Your task to perform on an android device: Show me recent news Image 0: 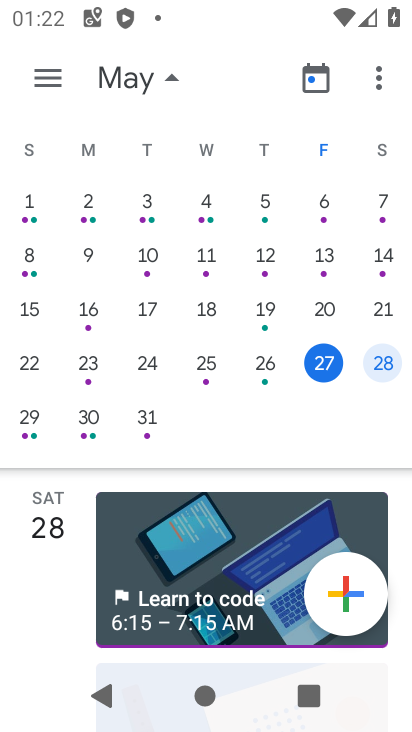
Step 0: press home button
Your task to perform on an android device: Show me recent news Image 1: 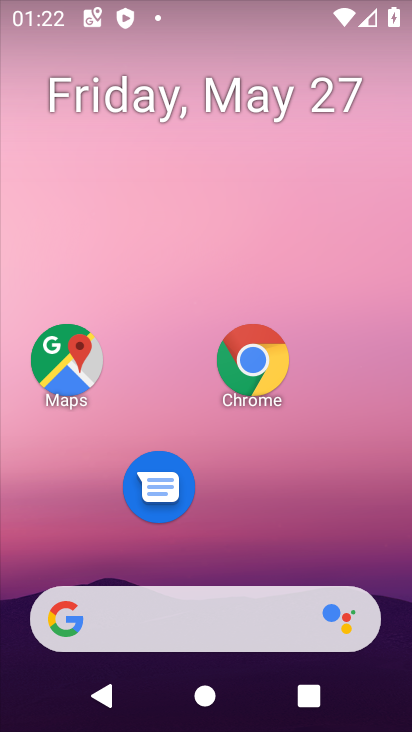
Step 1: drag from (236, 528) to (227, 130)
Your task to perform on an android device: Show me recent news Image 2: 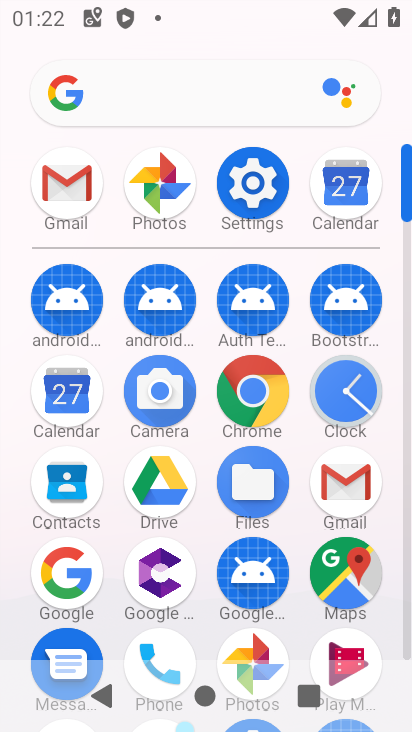
Step 2: click (69, 575)
Your task to perform on an android device: Show me recent news Image 3: 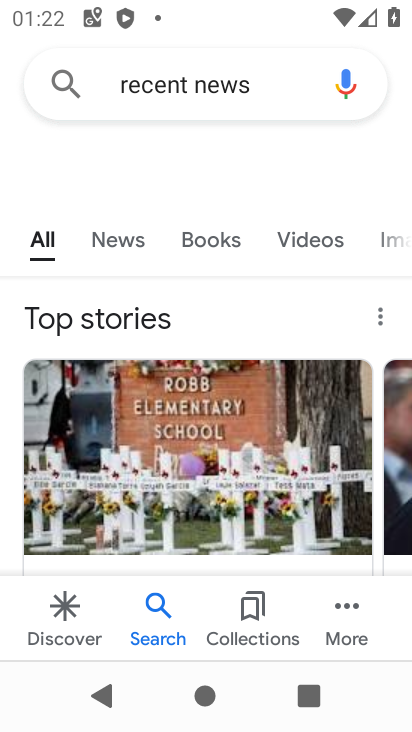
Step 3: task complete